Your task to perform on an android device: change the upload size in google photos Image 0: 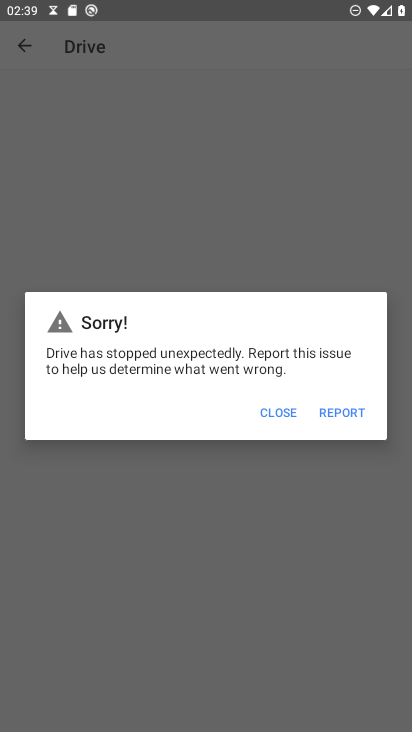
Step 0: press home button
Your task to perform on an android device: change the upload size in google photos Image 1: 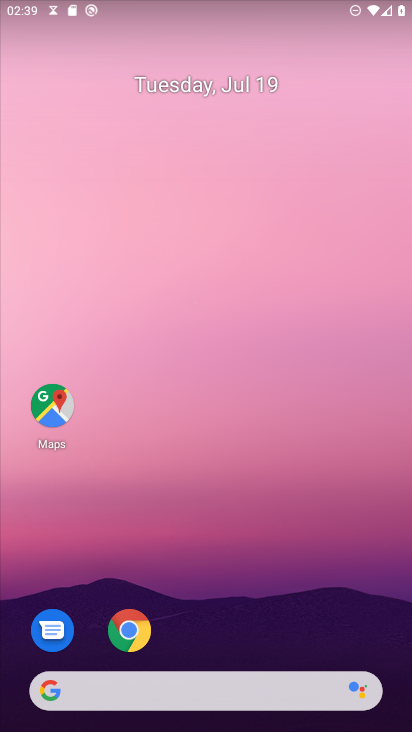
Step 1: drag from (220, 688) to (326, 82)
Your task to perform on an android device: change the upload size in google photos Image 2: 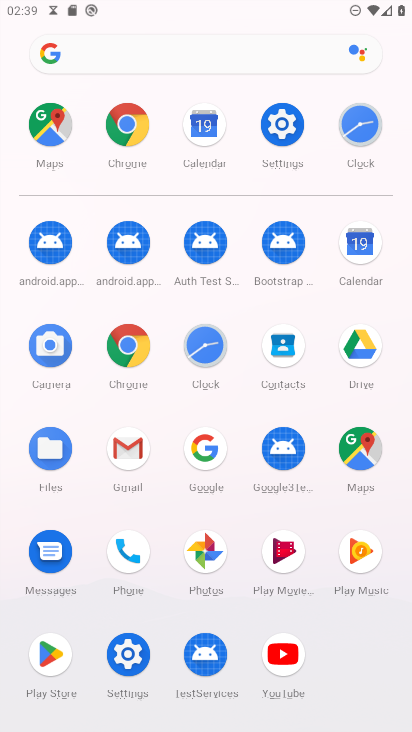
Step 2: click (211, 555)
Your task to perform on an android device: change the upload size in google photos Image 3: 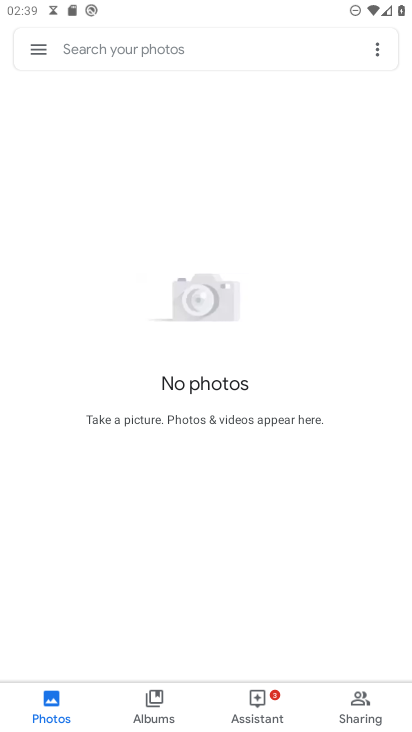
Step 3: click (41, 43)
Your task to perform on an android device: change the upload size in google photos Image 4: 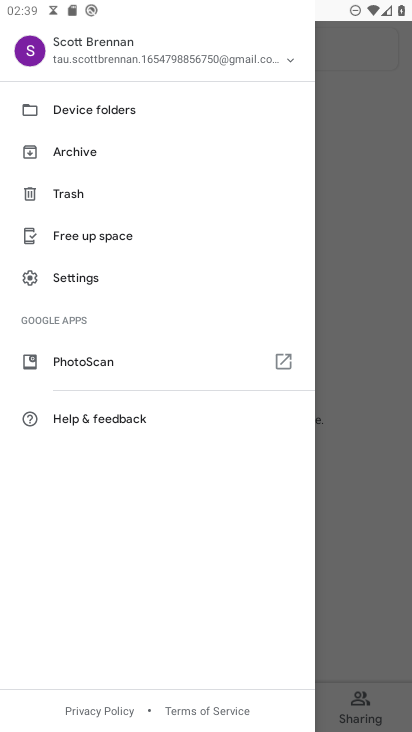
Step 4: click (73, 279)
Your task to perform on an android device: change the upload size in google photos Image 5: 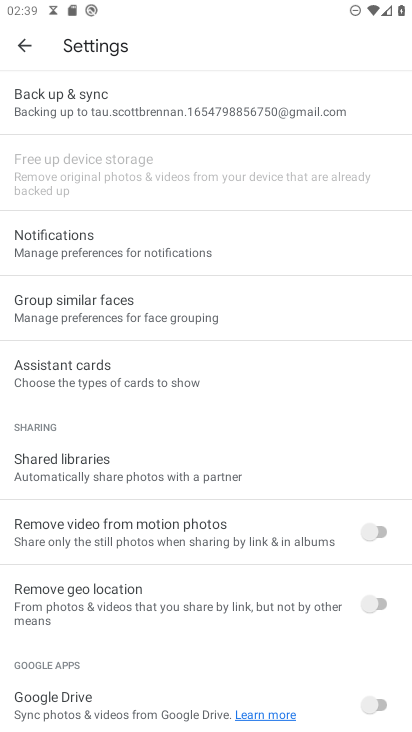
Step 5: click (144, 123)
Your task to perform on an android device: change the upload size in google photos Image 6: 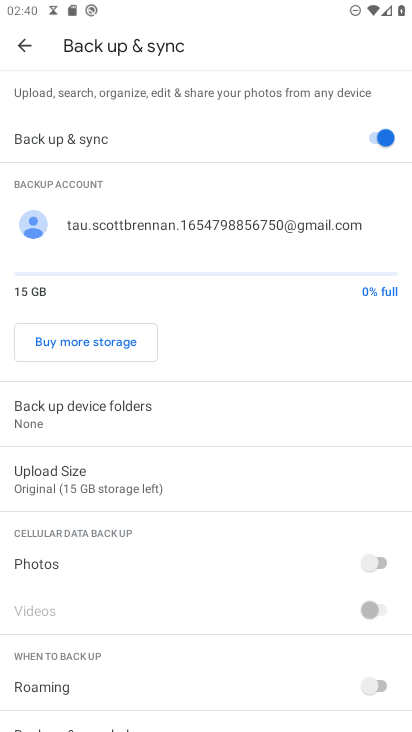
Step 6: click (120, 483)
Your task to perform on an android device: change the upload size in google photos Image 7: 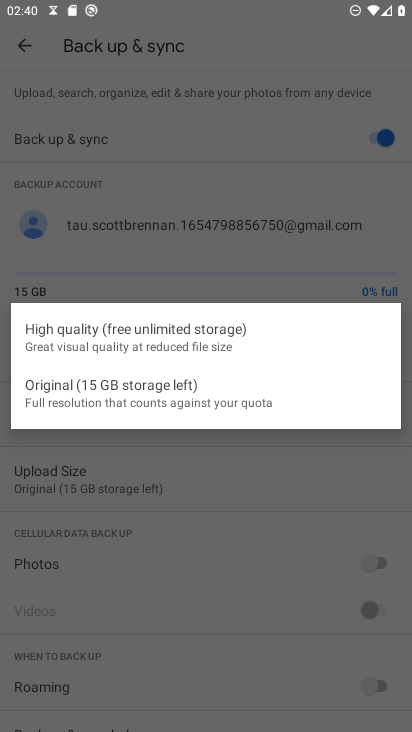
Step 7: click (85, 342)
Your task to perform on an android device: change the upload size in google photos Image 8: 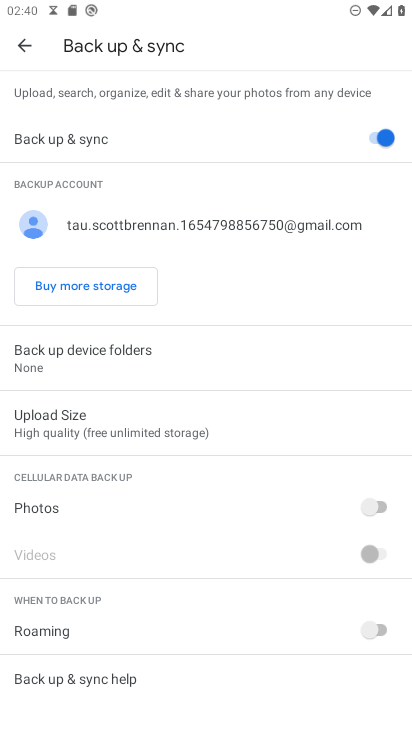
Step 8: task complete